Your task to perform on an android device: empty trash in the gmail app Image 0: 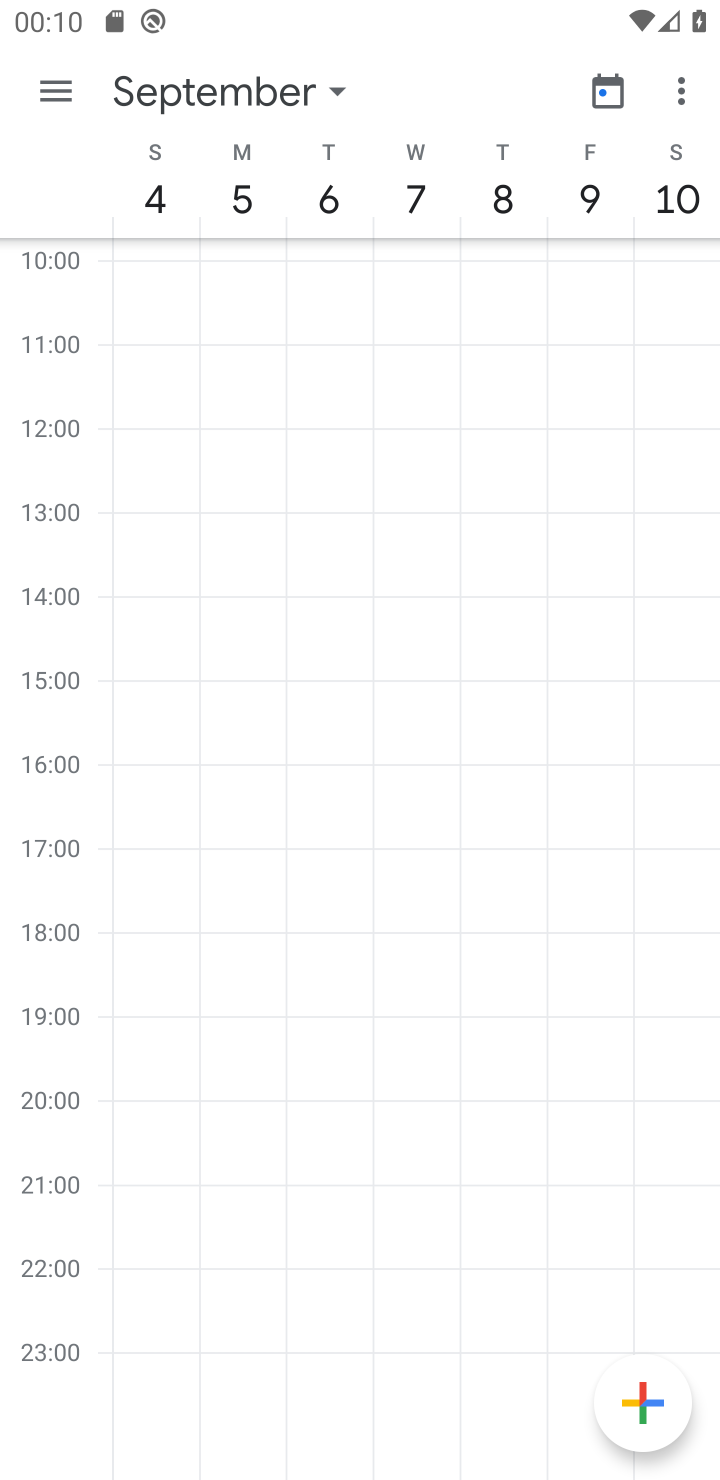
Step 0: press home button
Your task to perform on an android device: empty trash in the gmail app Image 1: 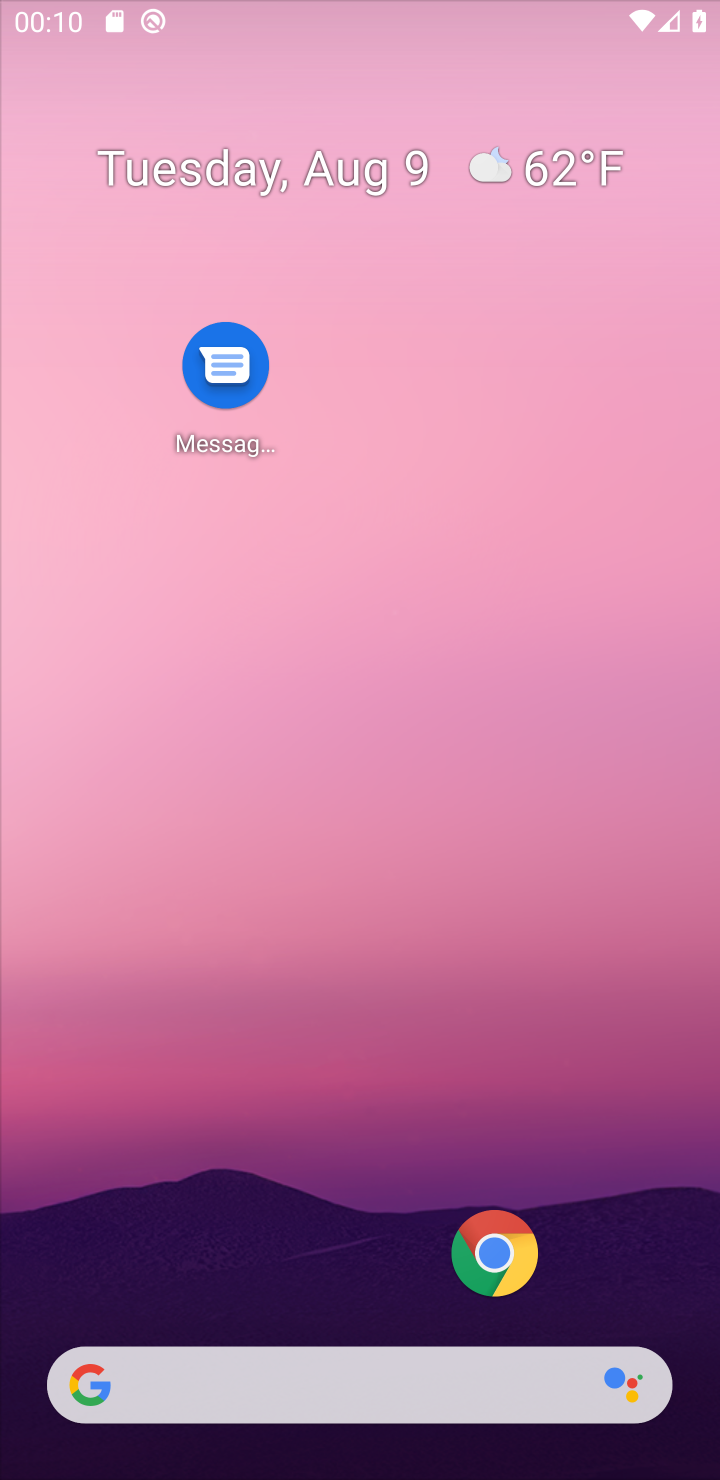
Step 1: drag from (295, 1180) to (399, 404)
Your task to perform on an android device: empty trash in the gmail app Image 2: 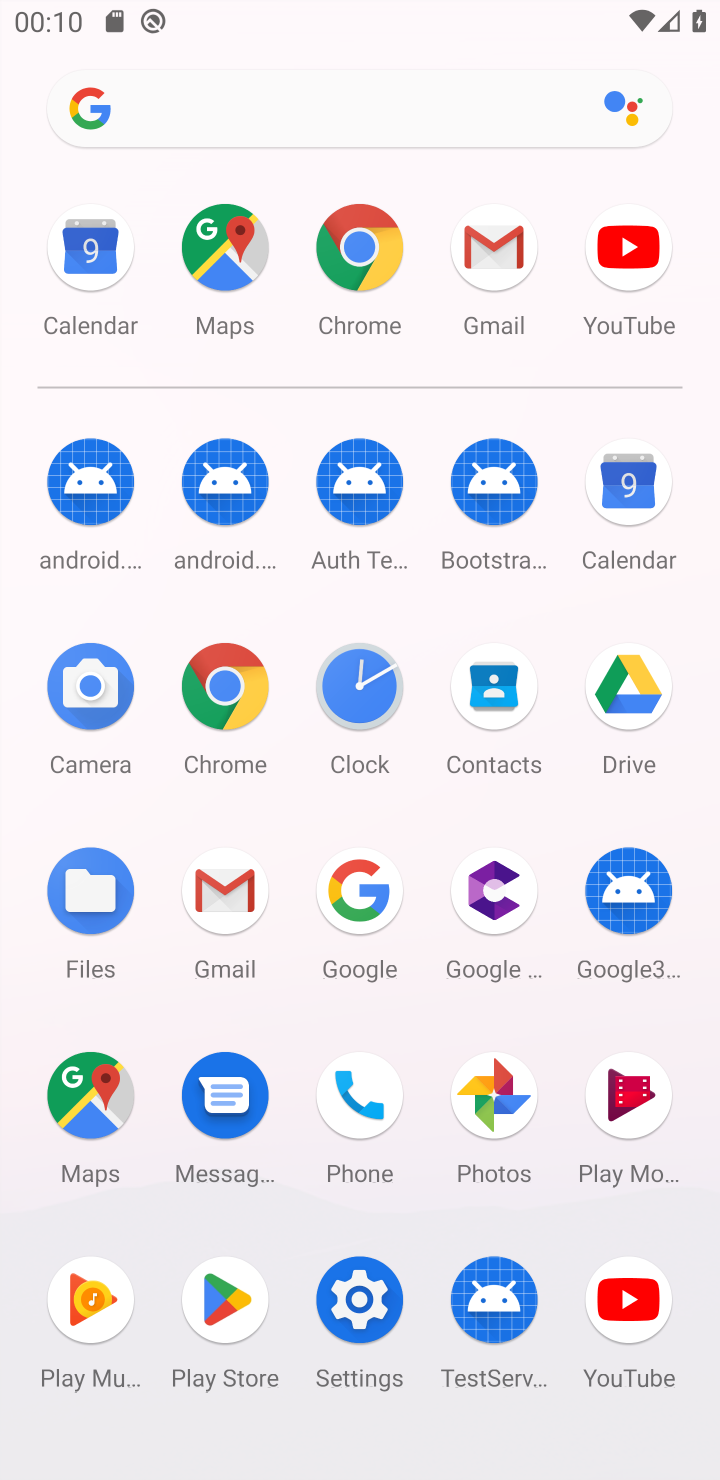
Step 2: click (221, 910)
Your task to perform on an android device: empty trash in the gmail app Image 3: 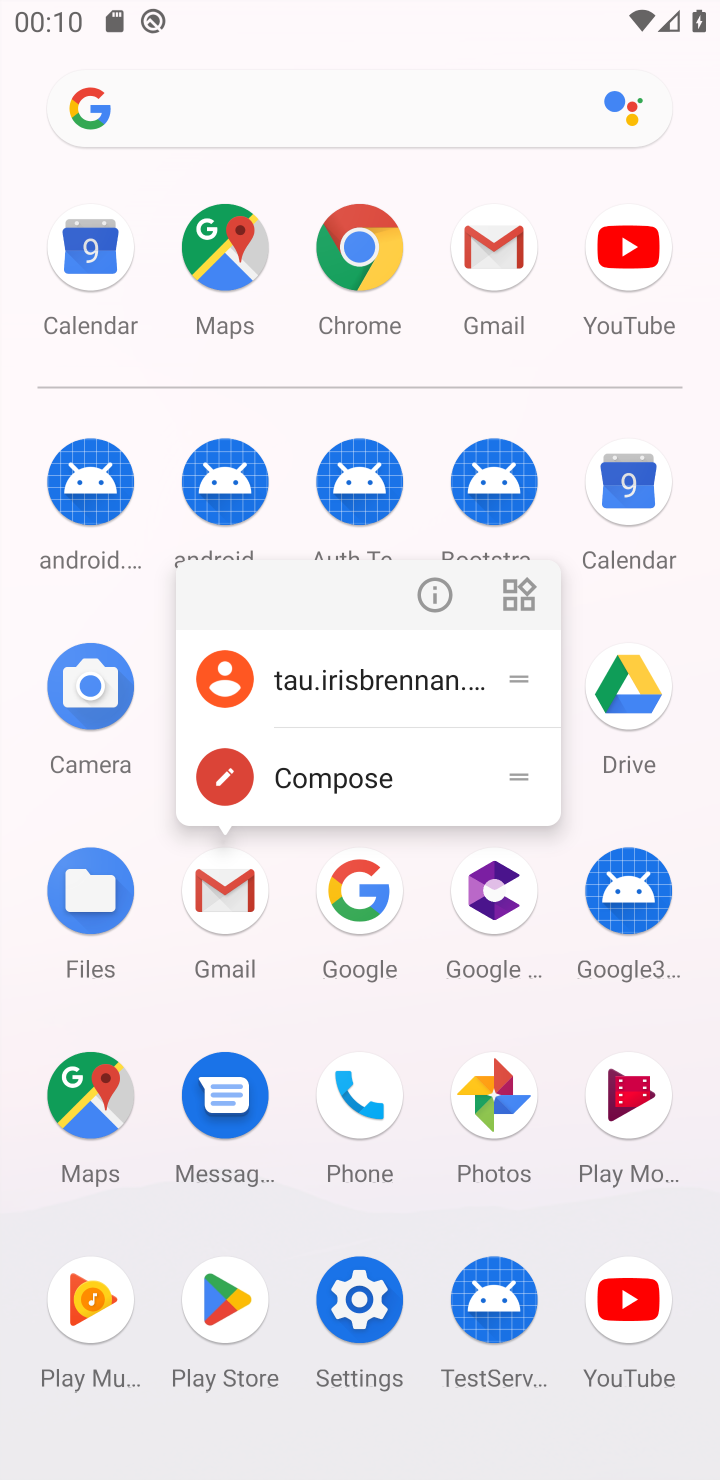
Step 3: click (221, 910)
Your task to perform on an android device: empty trash in the gmail app Image 4: 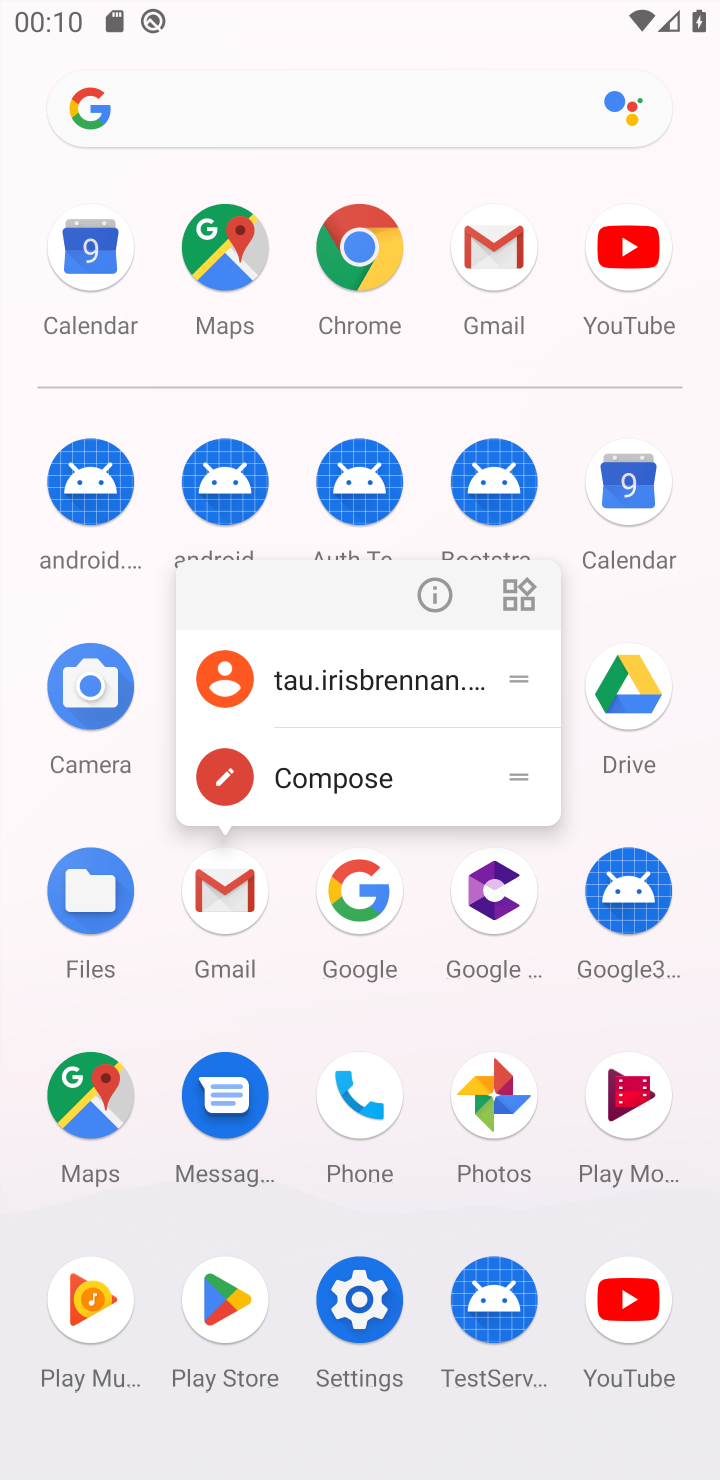
Step 4: click (221, 899)
Your task to perform on an android device: empty trash in the gmail app Image 5: 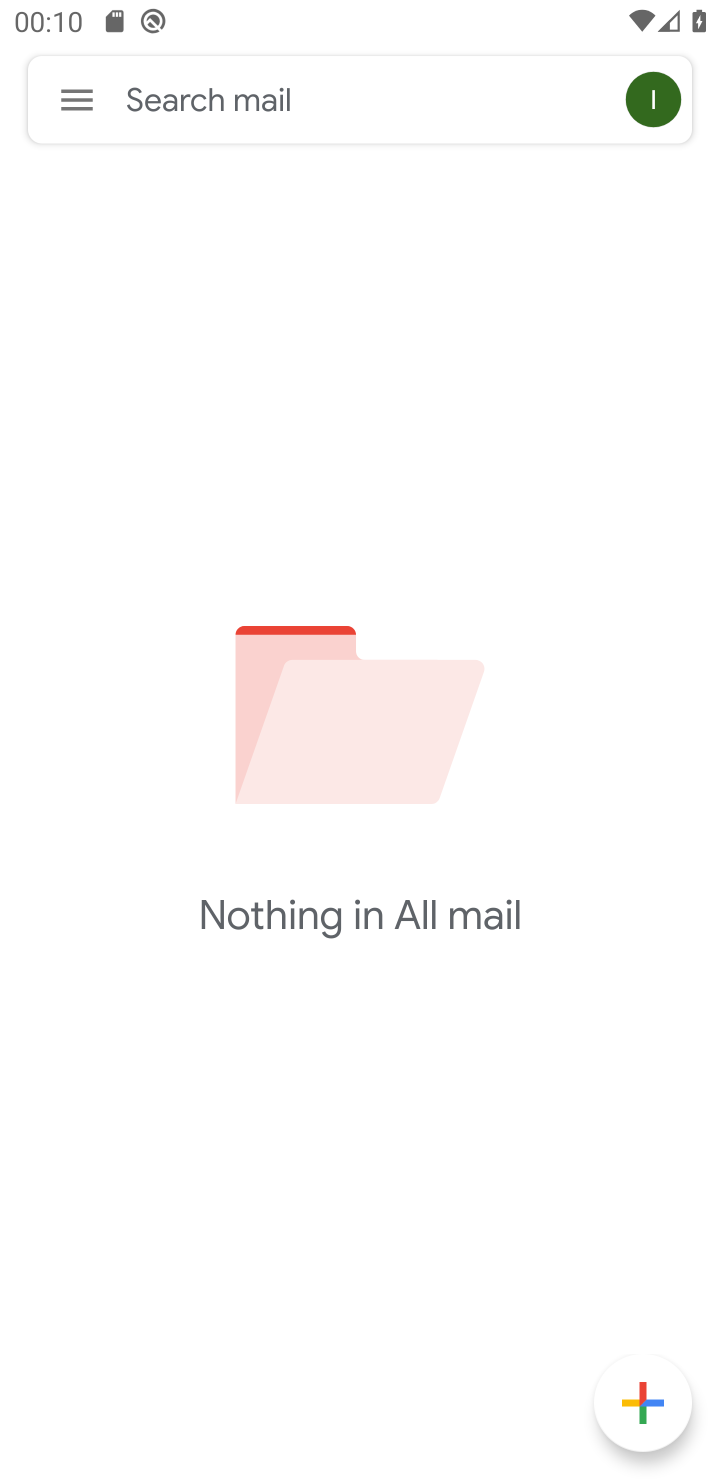
Step 5: click (86, 99)
Your task to perform on an android device: empty trash in the gmail app Image 6: 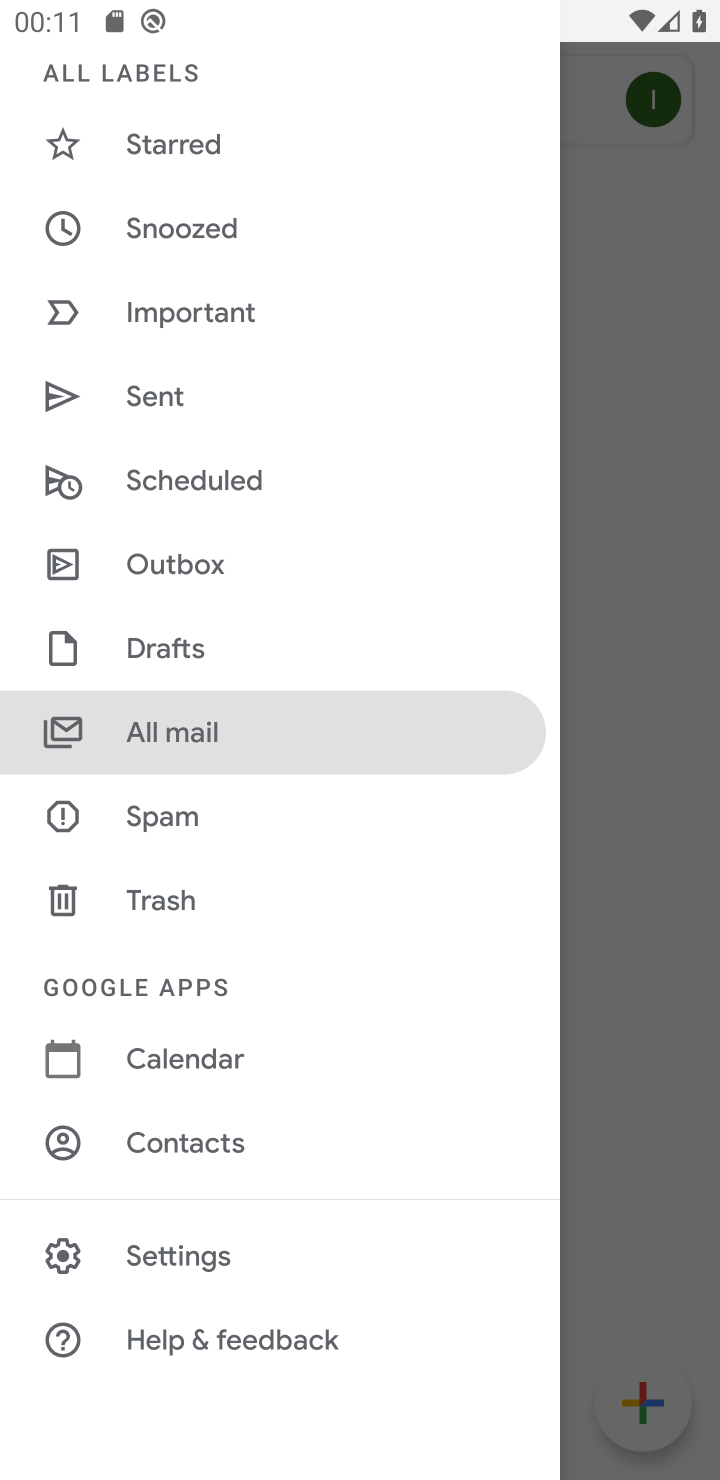
Step 6: click (173, 908)
Your task to perform on an android device: empty trash in the gmail app Image 7: 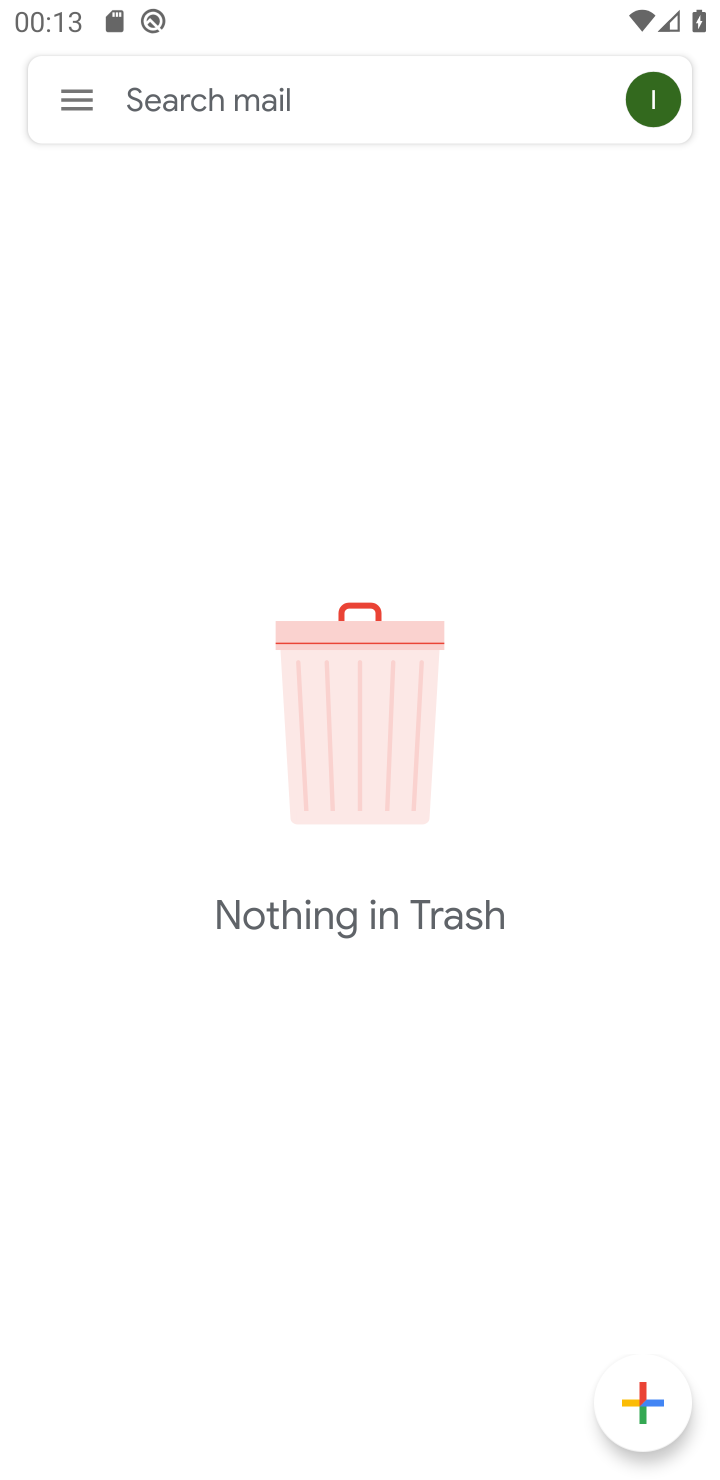
Step 7: task complete